Your task to perform on an android device: make emails show in primary in the gmail app Image 0: 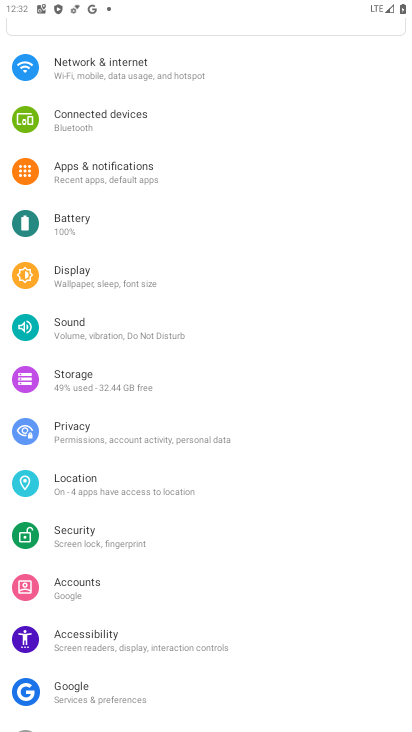
Step 0: press home button
Your task to perform on an android device: make emails show in primary in the gmail app Image 1: 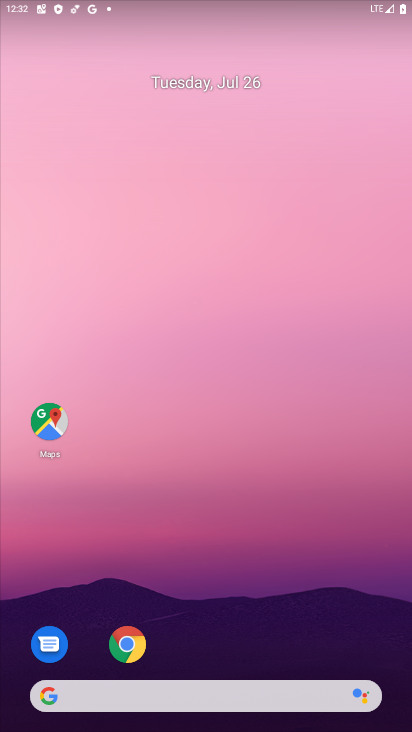
Step 1: drag from (300, 677) to (326, 0)
Your task to perform on an android device: make emails show in primary in the gmail app Image 2: 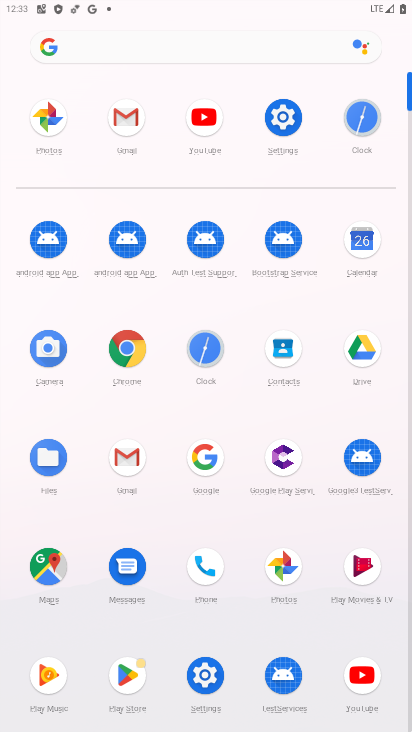
Step 2: click (120, 468)
Your task to perform on an android device: make emails show in primary in the gmail app Image 3: 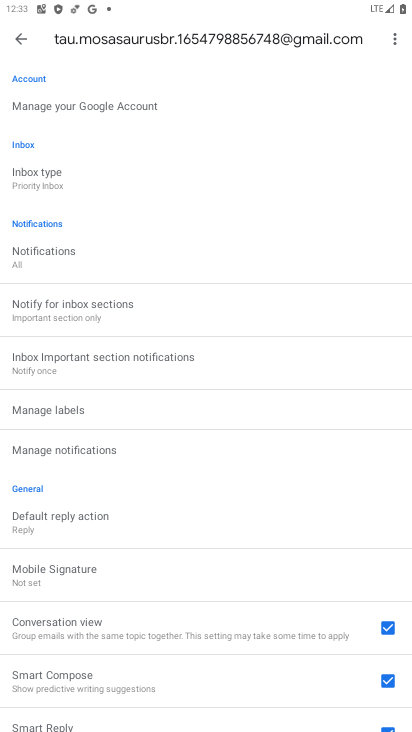
Step 3: task complete